Your task to perform on an android device: Open sound settings Image 0: 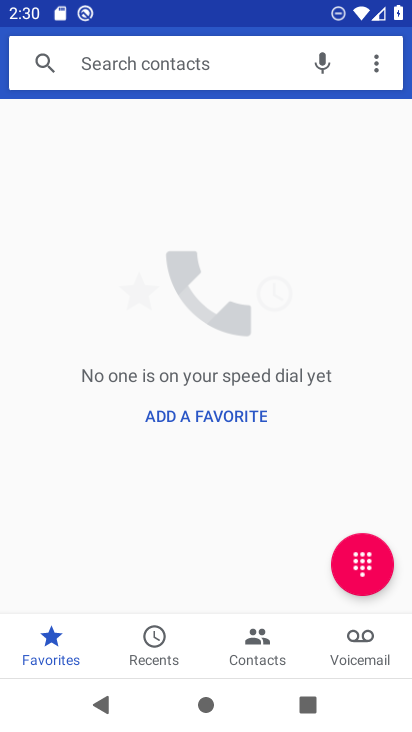
Step 0: press home button
Your task to perform on an android device: Open sound settings Image 1: 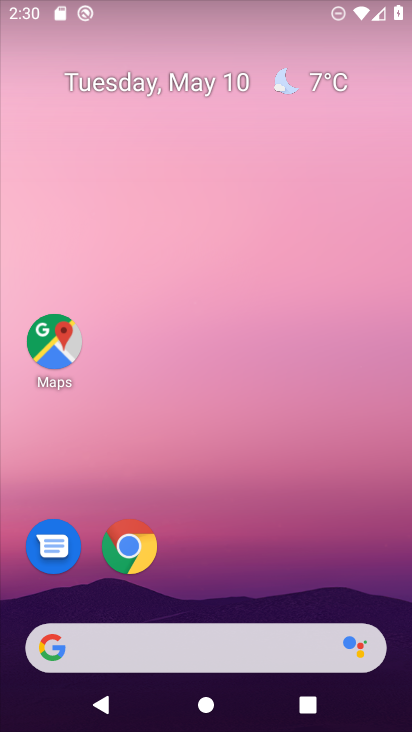
Step 1: drag from (290, 499) to (334, 111)
Your task to perform on an android device: Open sound settings Image 2: 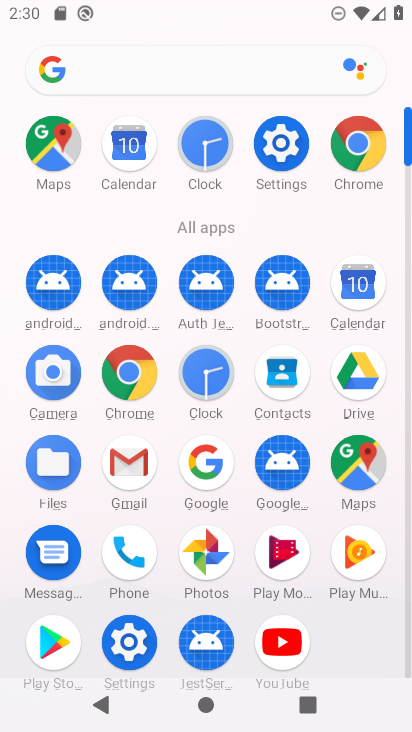
Step 2: click (279, 160)
Your task to perform on an android device: Open sound settings Image 3: 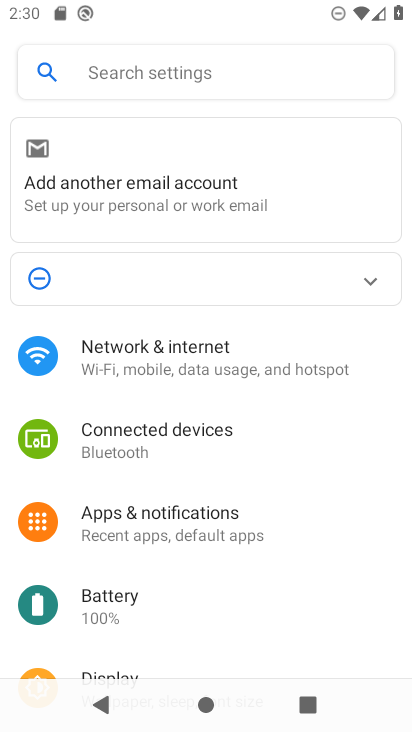
Step 3: drag from (134, 632) to (181, 314)
Your task to perform on an android device: Open sound settings Image 4: 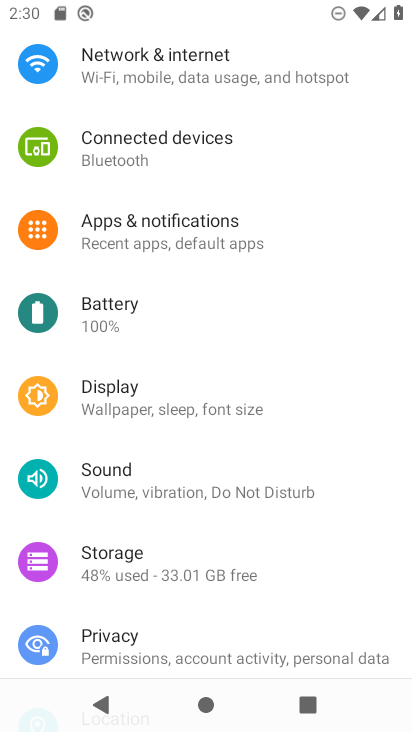
Step 4: click (182, 488)
Your task to perform on an android device: Open sound settings Image 5: 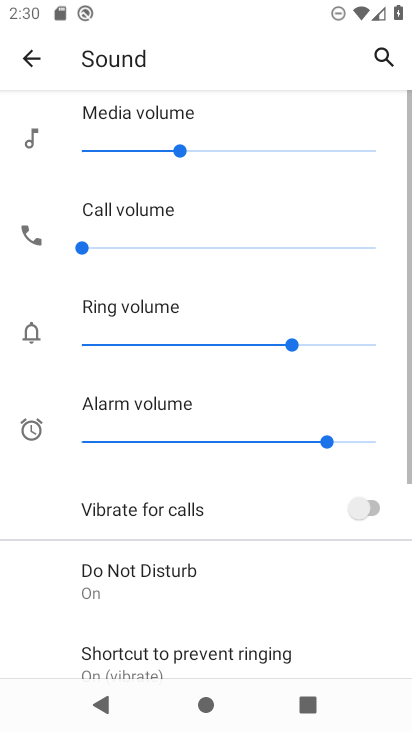
Step 5: task complete